Your task to perform on an android device: open app "Adobe Acrobat Reader" Image 0: 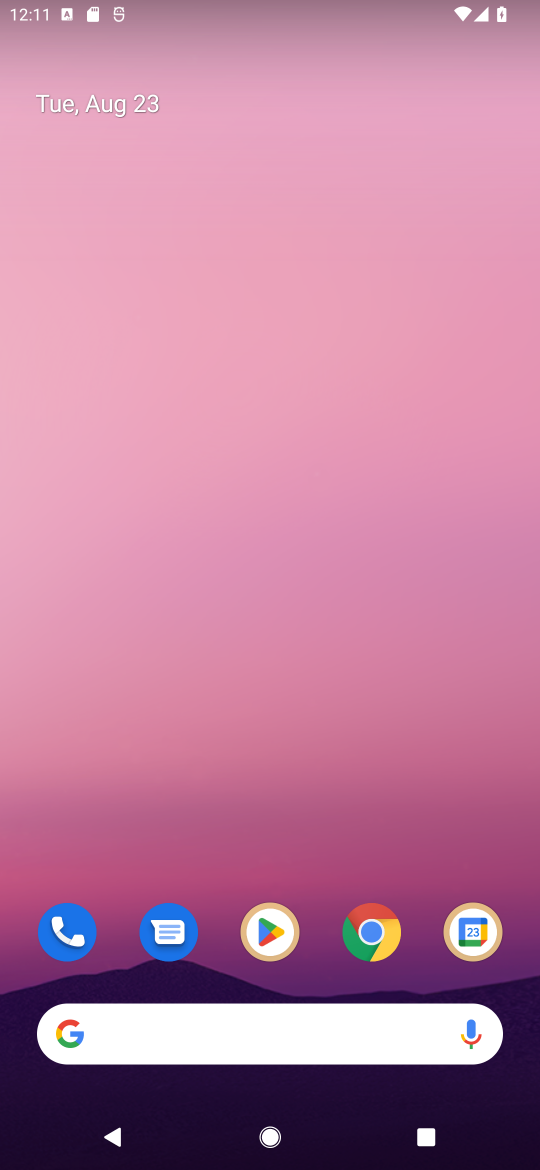
Step 0: click (275, 920)
Your task to perform on an android device: open app "Adobe Acrobat Reader" Image 1: 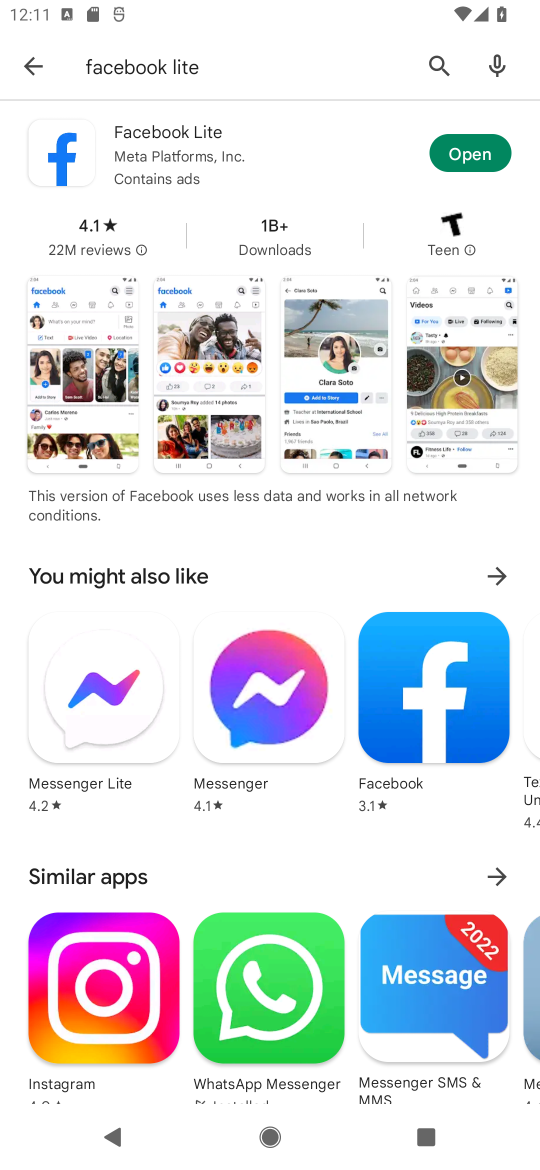
Step 1: click (437, 63)
Your task to perform on an android device: open app "Adobe Acrobat Reader" Image 2: 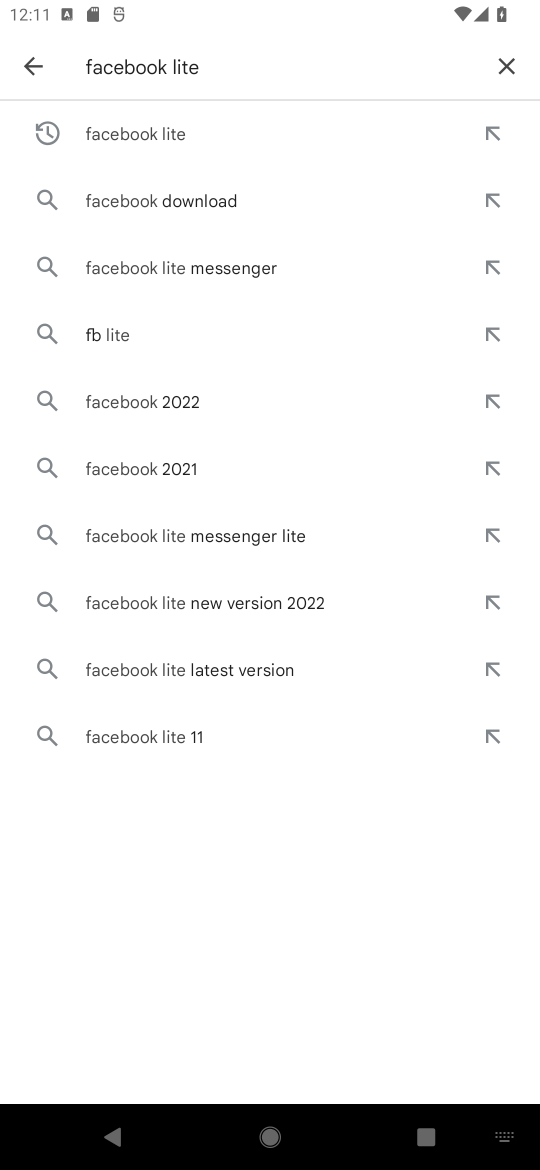
Step 2: click (504, 58)
Your task to perform on an android device: open app "Adobe Acrobat Reader" Image 3: 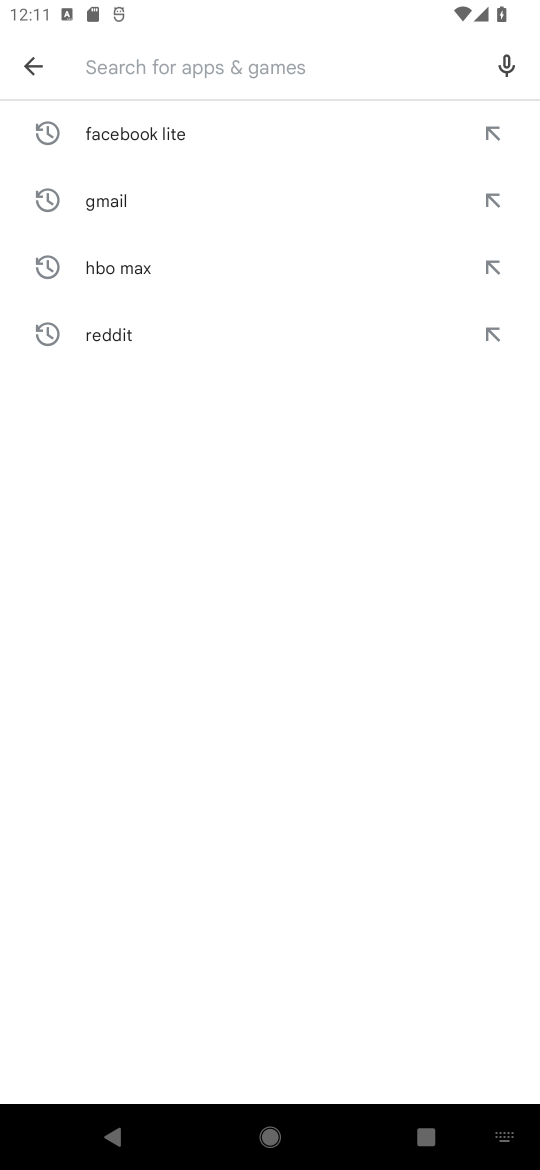
Step 3: click (144, 55)
Your task to perform on an android device: open app "Adobe Acrobat Reader" Image 4: 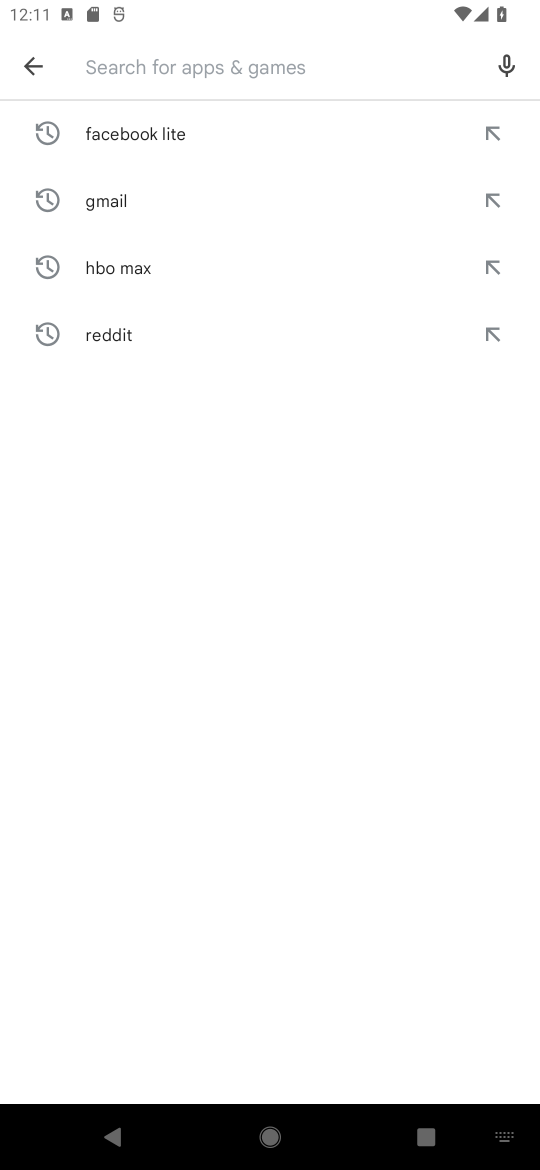
Step 4: type "Adobe Acrobat Reader"
Your task to perform on an android device: open app "Adobe Acrobat Reader" Image 5: 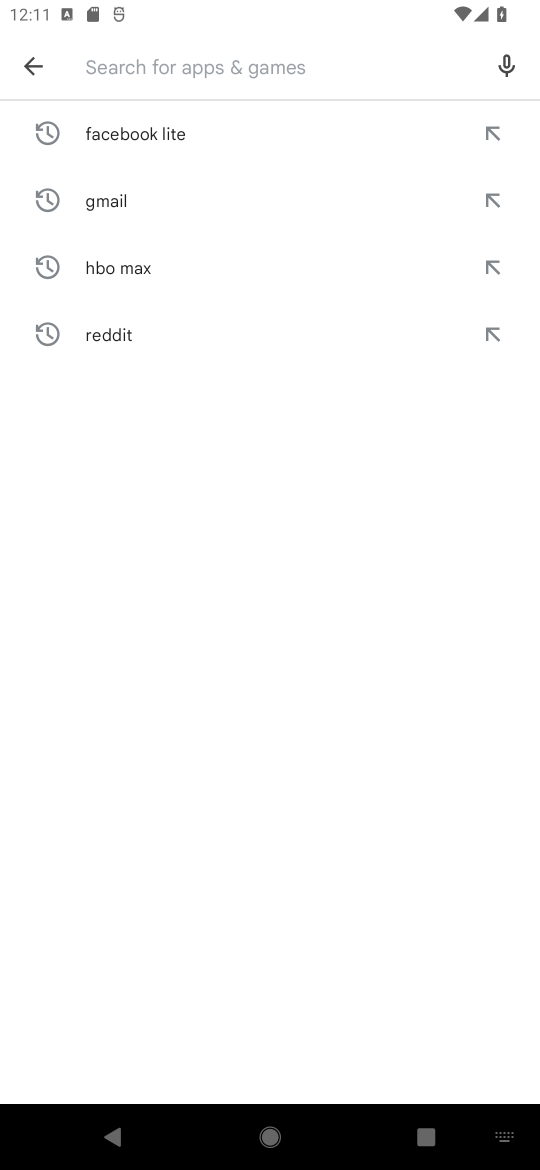
Step 5: click (303, 724)
Your task to perform on an android device: open app "Adobe Acrobat Reader" Image 6: 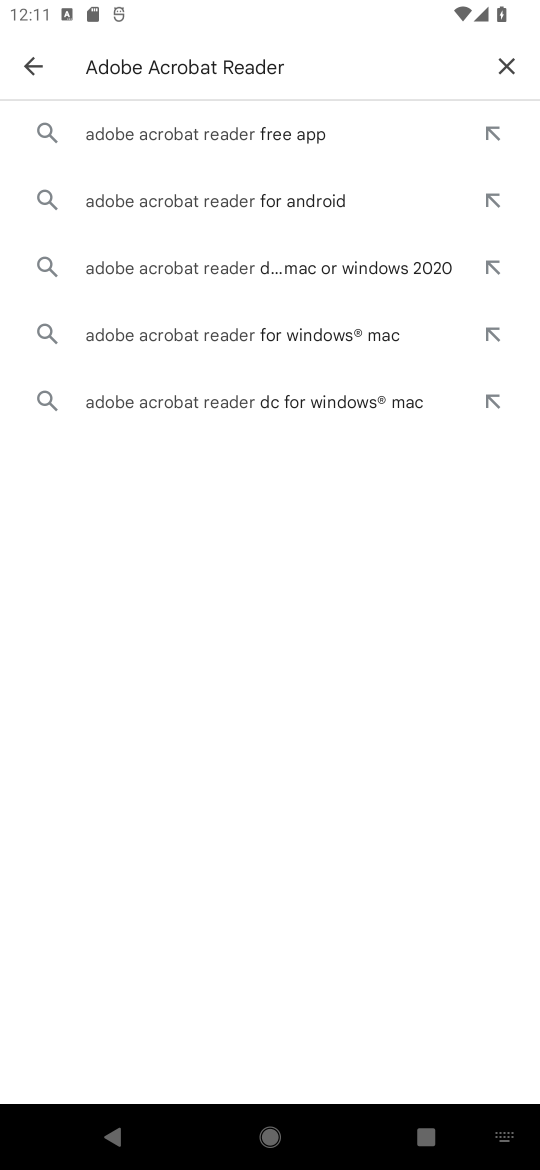
Step 6: click (271, 119)
Your task to perform on an android device: open app "Adobe Acrobat Reader" Image 7: 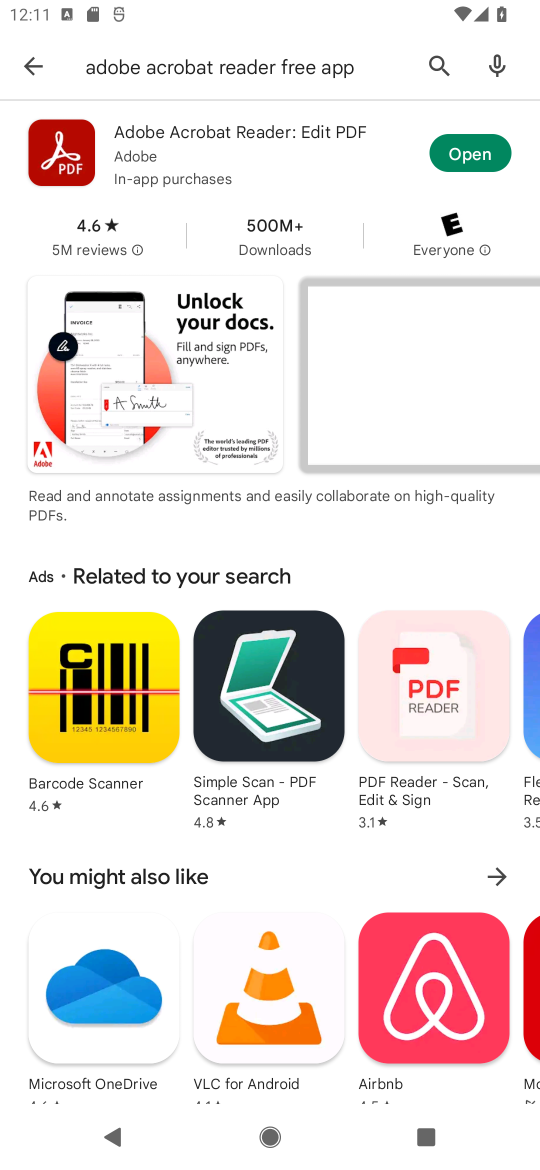
Step 7: click (481, 140)
Your task to perform on an android device: open app "Adobe Acrobat Reader" Image 8: 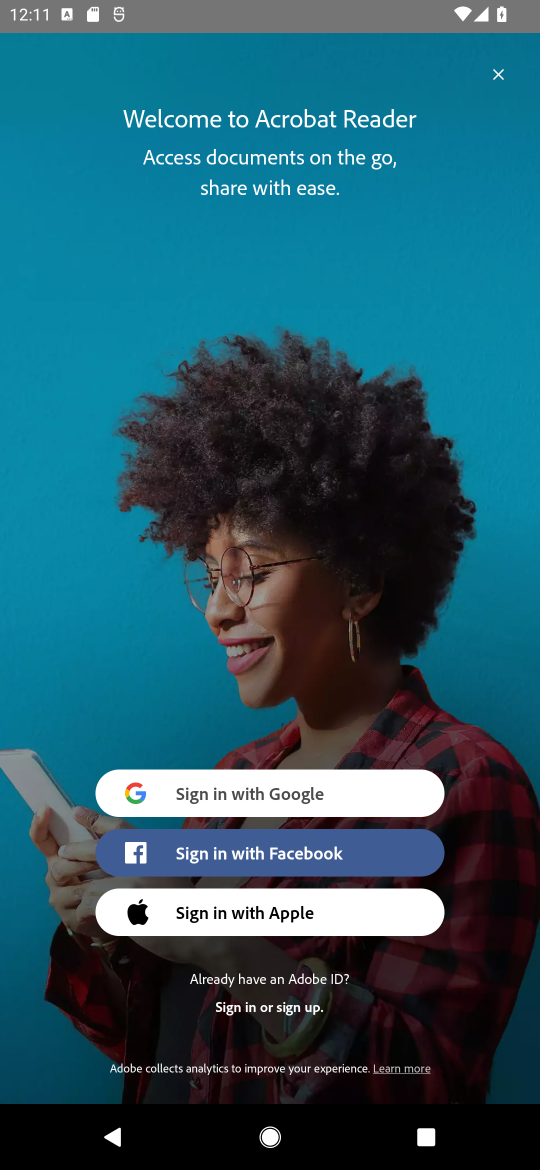
Step 8: task complete